Your task to perform on an android device: turn on bluetooth scan Image 0: 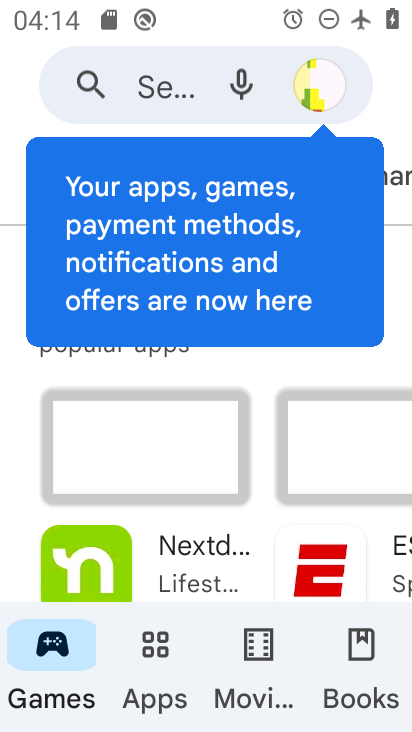
Step 0: press home button
Your task to perform on an android device: turn on bluetooth scan Image 1: 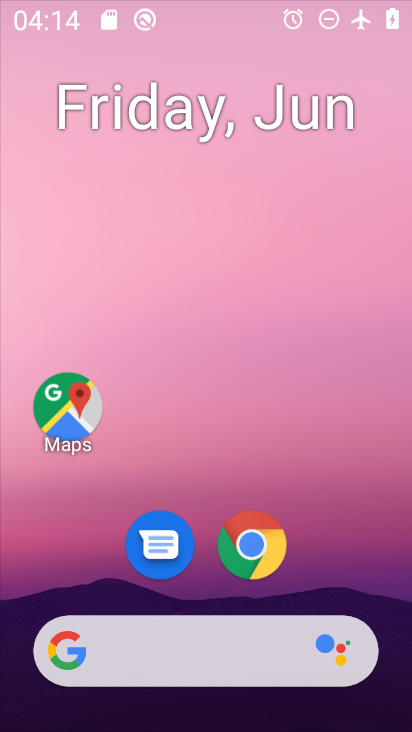
Step 1: drag from (351, 503) to (380, 7)
Your task to perform on an android device: turn on bluetooth scan Image 2: 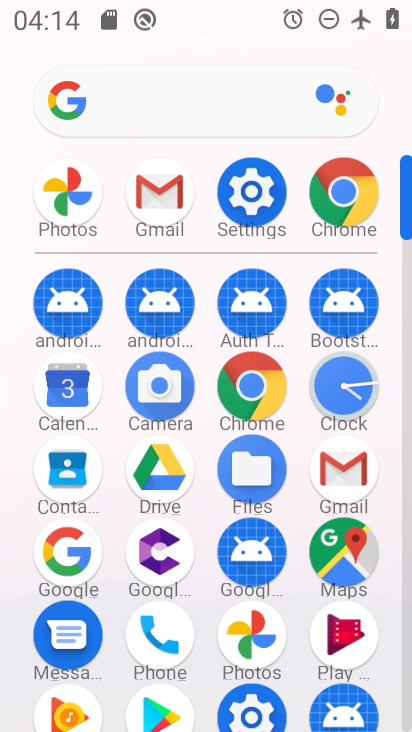
Step 2: click (249, 201)
Your task to perform on an android device: turn on bluetooth scan Image 3: 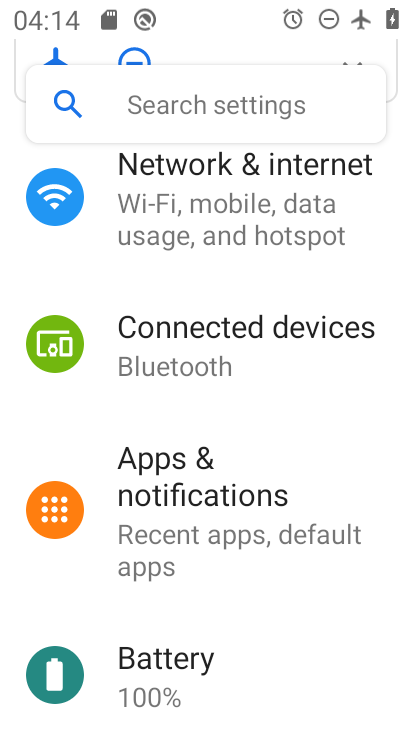
Step 3: drag from (233, 617) to (336, 95)
Your task to perform on an android device: turn on bluetooth scan Image 4: 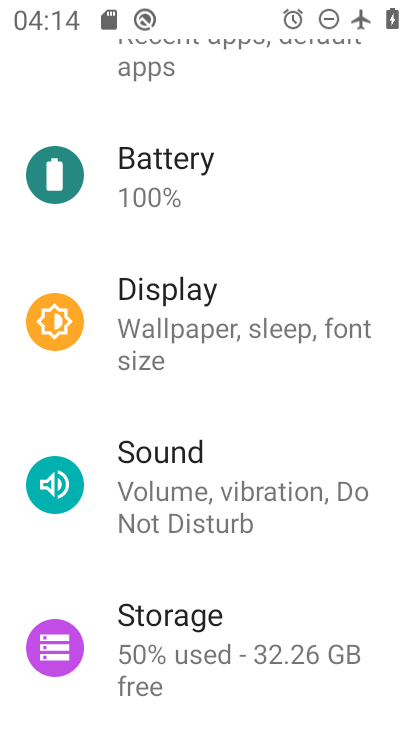
Step 4: drag from (213, 553) to (248, 6)
Your task to perform on an android device: turn on bluetooth scan Image 5: 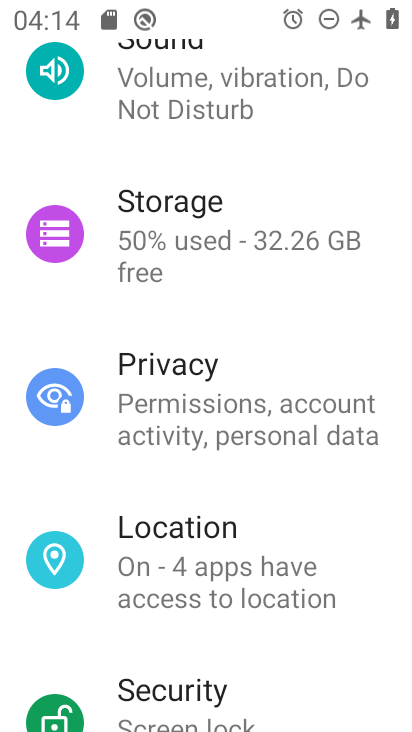
Step 5: click (235, 575)
Your task to perform on an android device: turn on bluetooth scan Image 6: 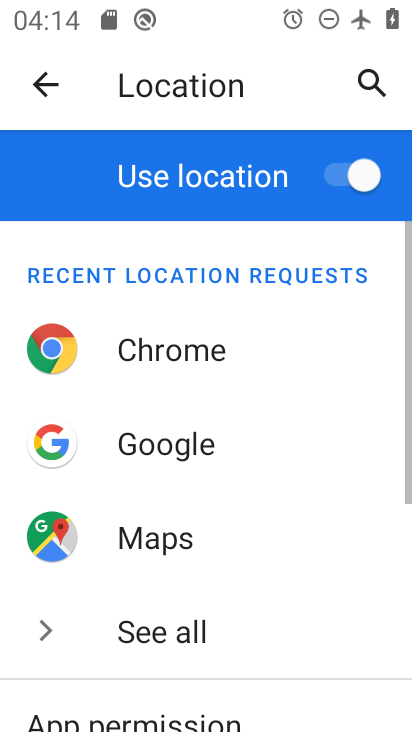
Step 6: drag from (344, 633) to (388, 224)
Your task to perform on an android device: turn on bluetooth scan Image 7: 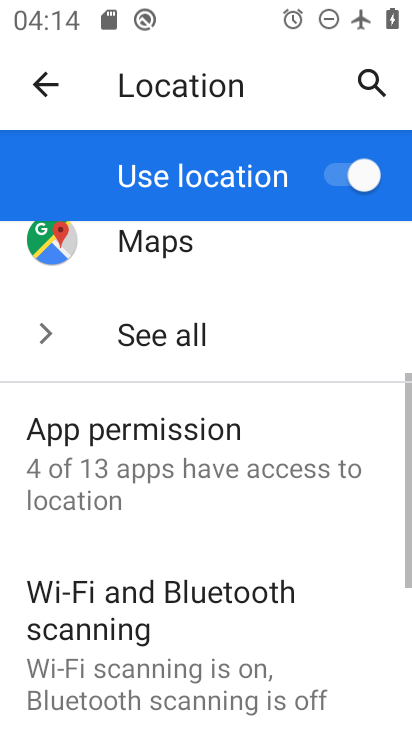
Step 7: click (247, 590)
Your task to perform on an android device: turn on bluetooth scan Image 8: 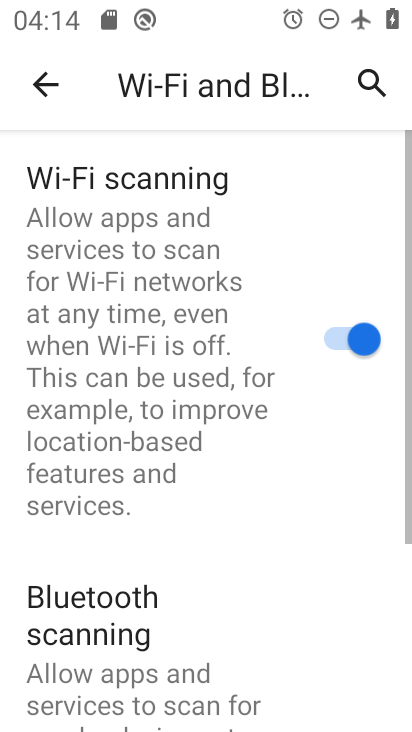
Step 8: drag from (270, 623) to (315, 216)
Your task to perform on an android device: turn on bluetooth scan Image 9: 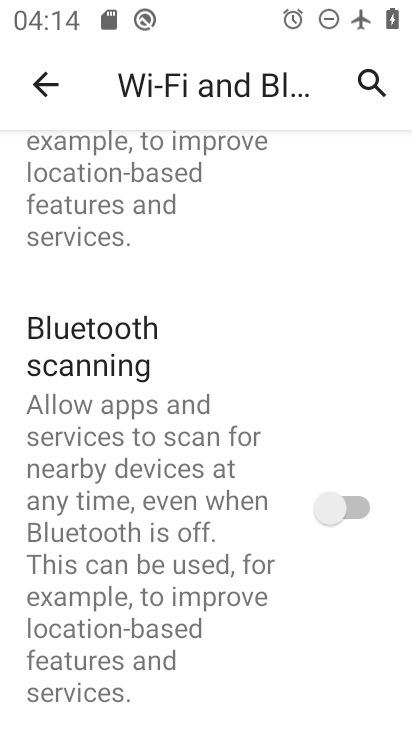
Step 9: click (348, 506)
Your task to perform on an android device: turn on bluetooth scan Image 10: 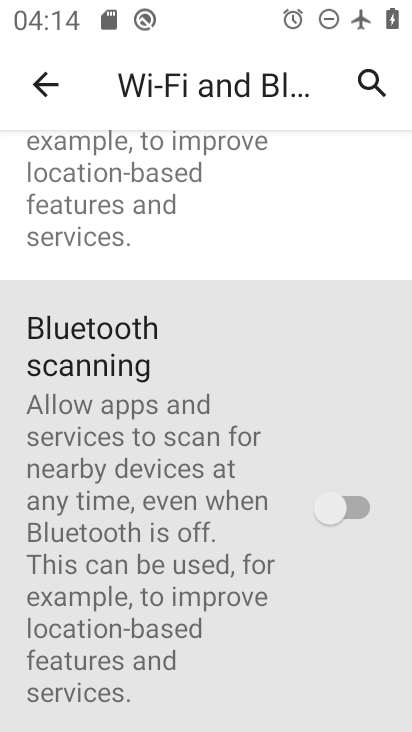
Step 10: task complete